Your task to perform on an android device: Show me popular games on the Play Store Image 0: 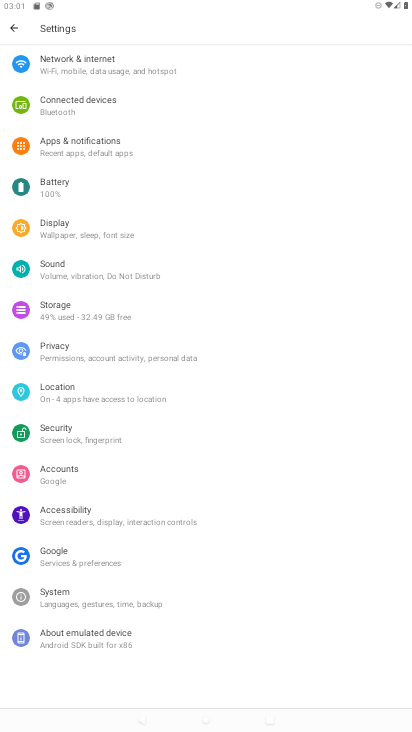
Step 0: press home button
Your task to perform on an android device: Show me popular games on the Play Store Image 1: 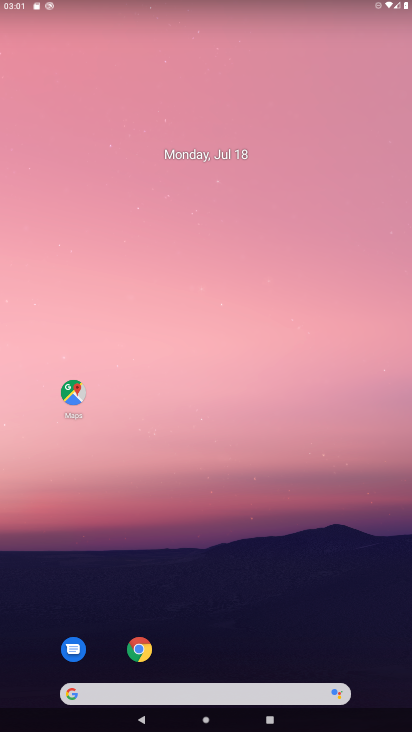
Step 1: drag from (96, 502) to (122, 61)
Your task to perform on an android device: Show me popular games on the Play Store Image 2: 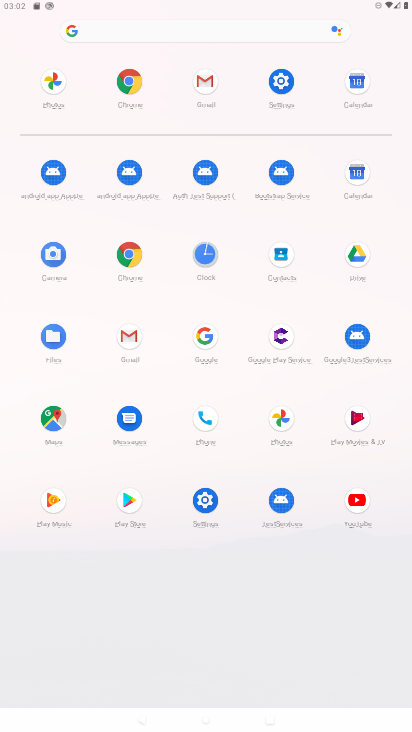
Step 2: click (140, 495)
Your task to perform on an android device: Show me popular games on the Play Store Image 3: 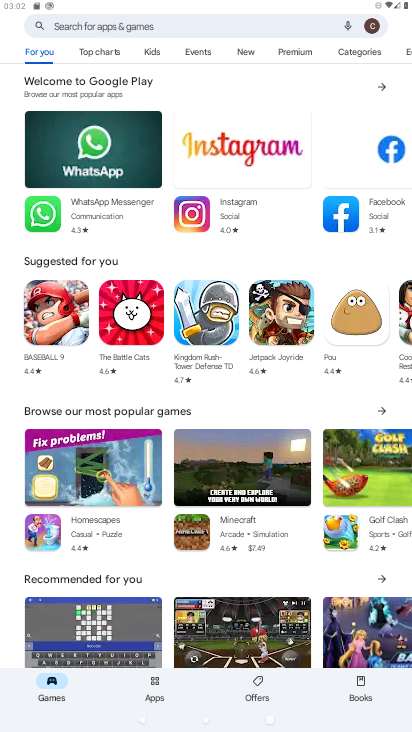
Step 3: task complete